Your task to perform on an android device: change timer sound Image 0: 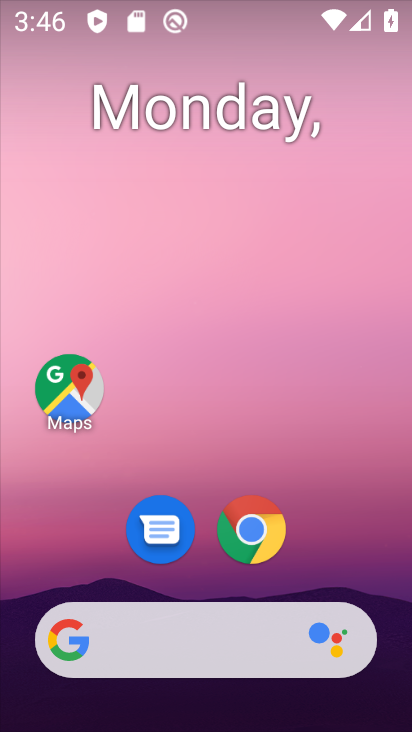
Step 0: drag from (209, 569) to (225, 18)
Your task to perform on an android device: change timer sound Image 1: 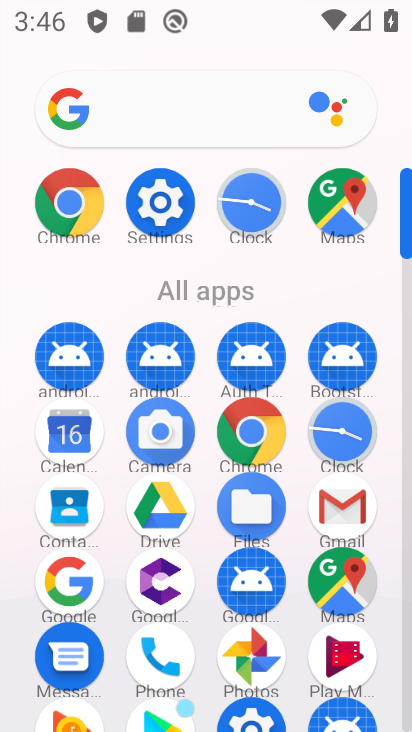
Step 1: click (248, 201)
Your task to perform on an android device: change timer sound Image 2: 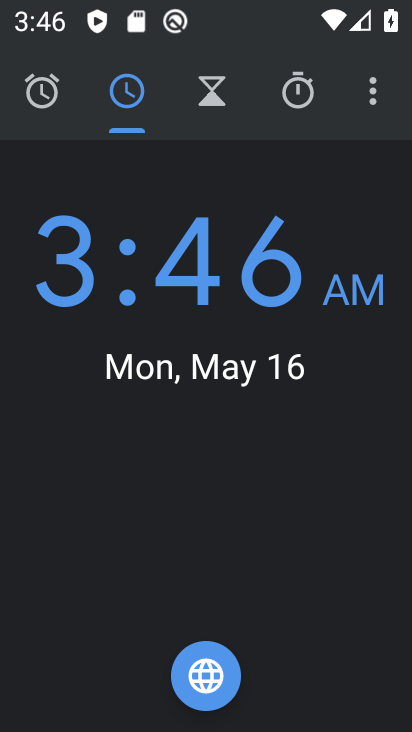
Step 2: click (378, 106)
Your task to perform on an android device: change timer sound Image 3: 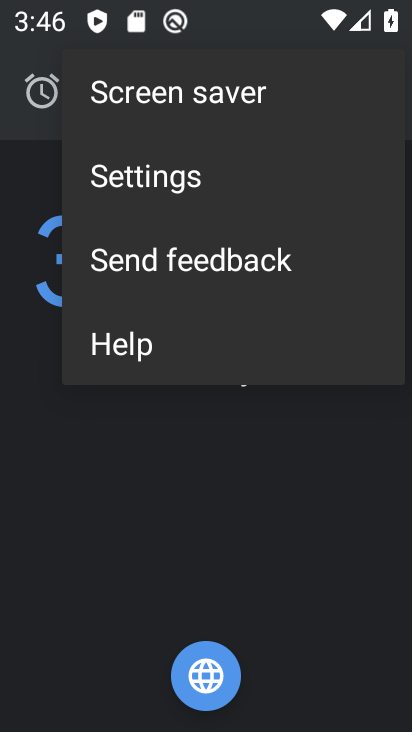
Step 3: click (172, 190)
Your task to perform on an android device: change timer sound Image 4: 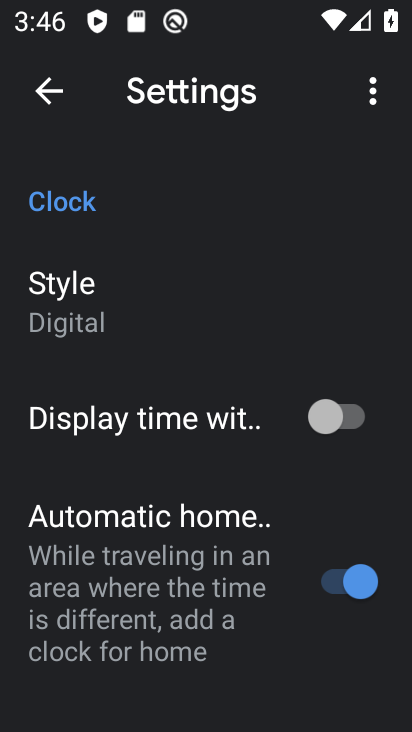
Step 4: drag from (138, 483) to (232, 252)
Your task to perform on an android device: change timer sound Image 5: 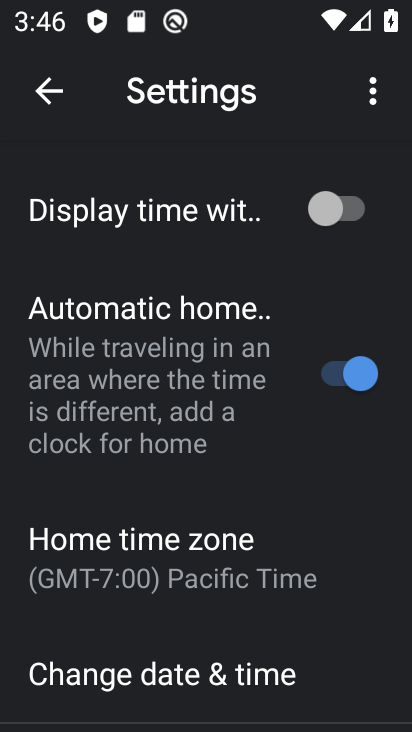
Step 5: drag from (174, 532) to (239, 293)
Your task to perform on an android device: change timer sound Image 6: 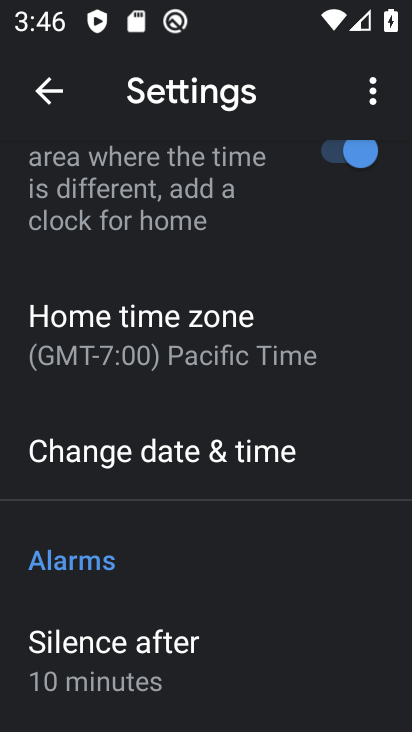
Step 6: drag from (170, 592) to (216, 292)
Your task to perform on an android device: change timer sound Image 7: 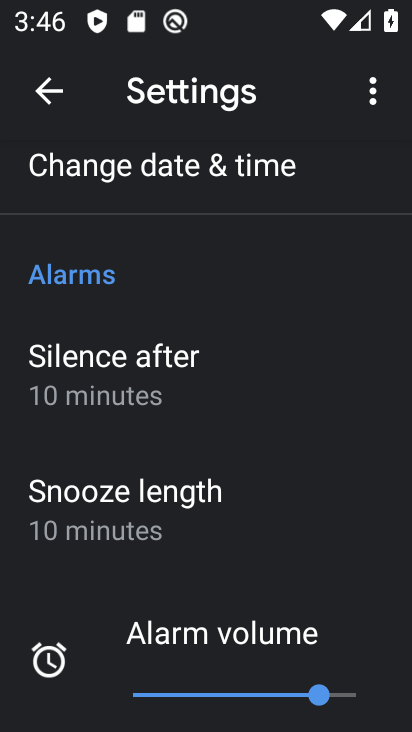
Step 7: drag from (142, 556) to (195, 331)
Your task to perform on an android device: change timer sound Image 8: 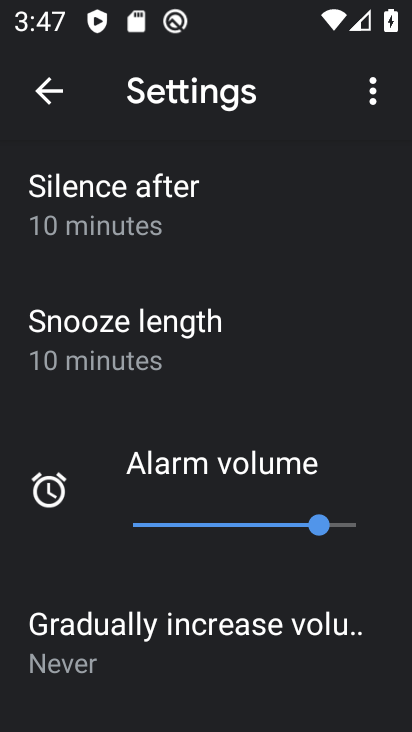
Step 8: drag from (141, 591) to (204, 382)
Your task to perform on an android device: change timer sound Image 9: 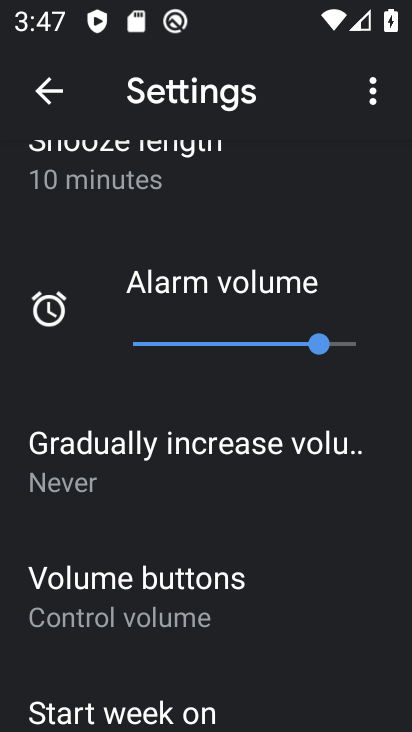
Step 9: drag from (95, 621) to (152, 327)
Your task to perform on an android device: change timer sound Image 10: 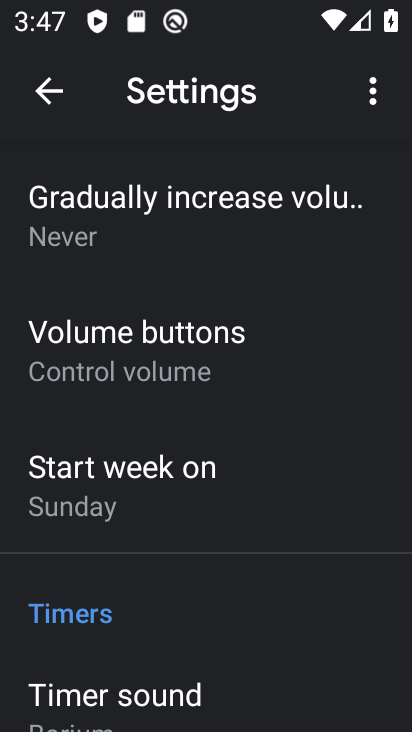
Step 10: drag from (97, 679) to (160, 338)
Your task to perform on an android device: change timer sound Image 11: 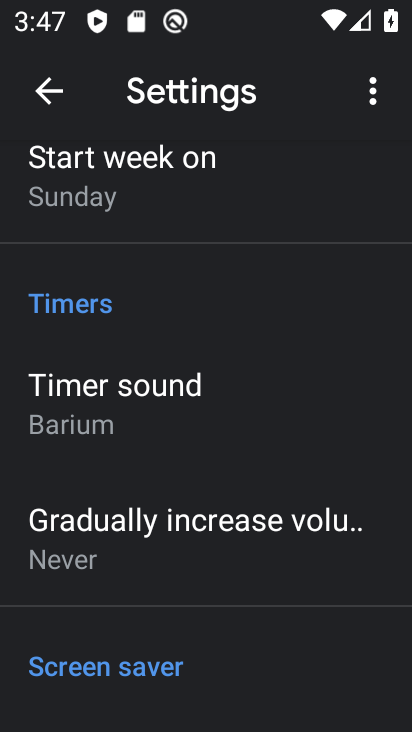
Step 11: click (141, 418)
Your task to perform on an android device: change timer sound Image 12: 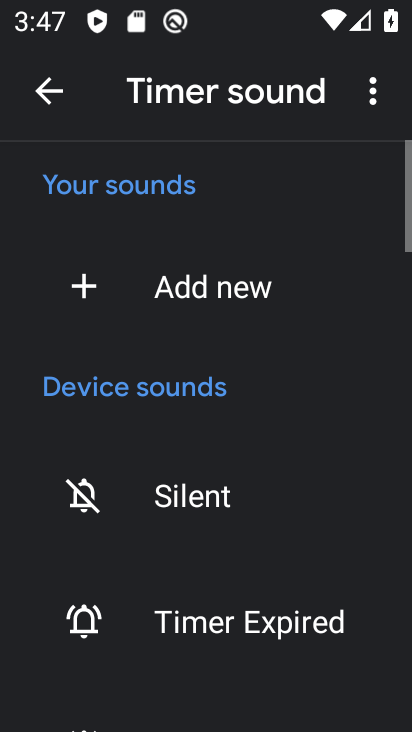
Step 12: click (204, 639)
Your task to perform on an android device: change timer sound Image 13: 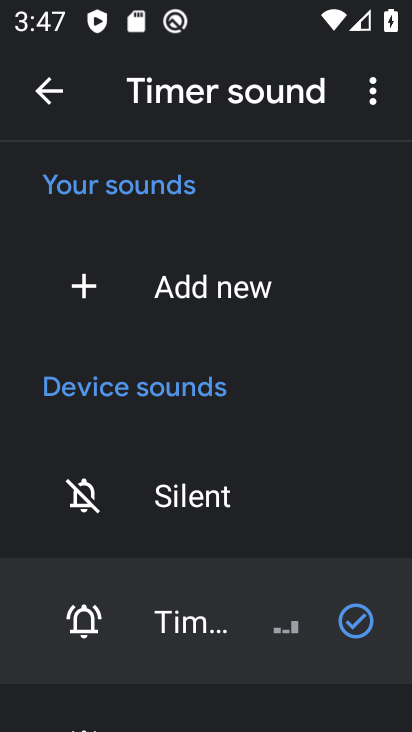
Step 13: task complete